Your task to perform on an android device: stop showing notifications on the lock screen Image 0: 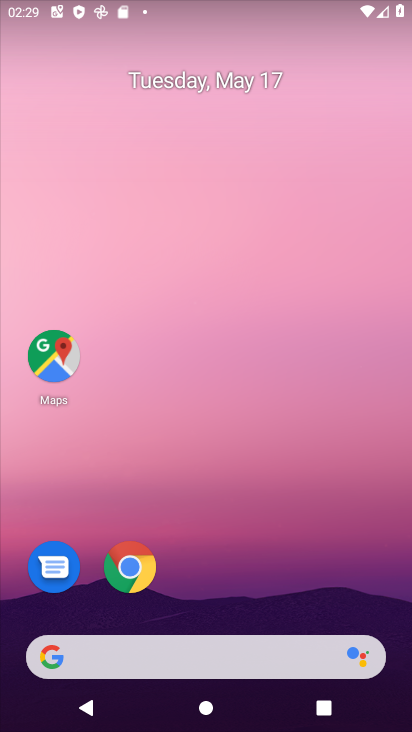
Step 0: drag from (391, 631) to (330, 202)
Your task to perform on an android device: stop showing notifications on the lock screen Image 1: 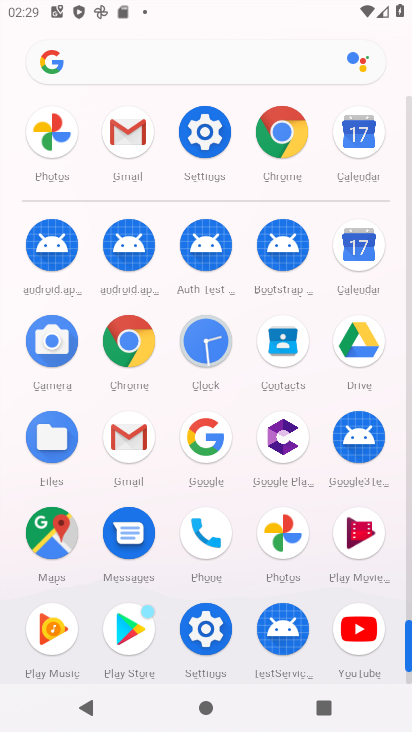
Step 1: click (208, 629)
Your task to perform on an android device: stop showing notifications on the lock screen Image 2: 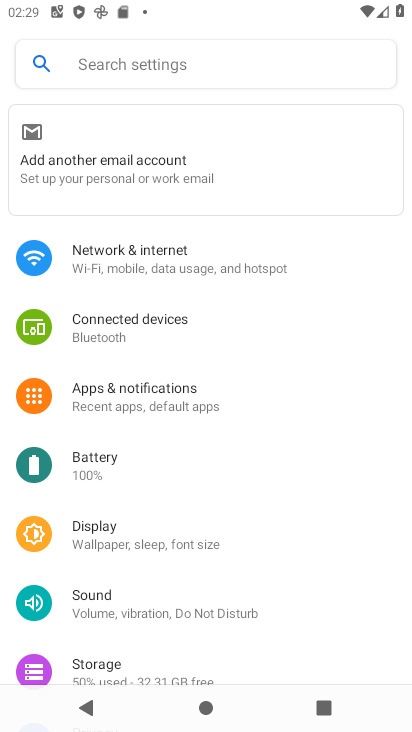
Step 2: click (131, 387)
Your task to perform on an android device: stop showing notifications on the lock screen Image 3: 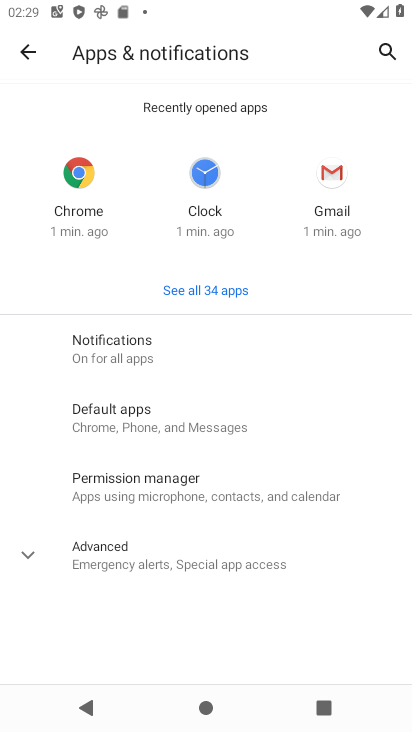
Step 3: click (89, 335)
Your task to perform on an android device: stop showing notifications on the lock screen Image 4: 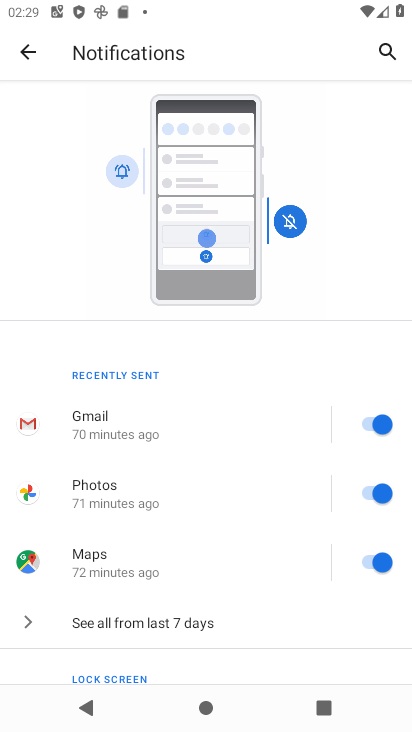
Step 4: drag from (321, 635) to (308, 165)
Your task to perform on an android device: stop showing notifications on the lock screen Image 5: 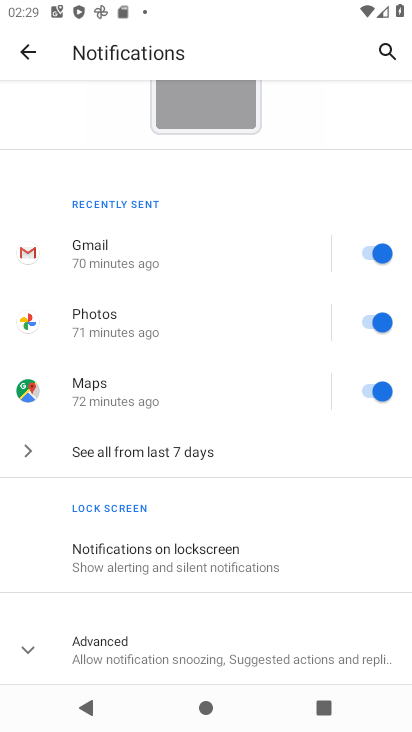
Step 5: click (134, 558)
Your task to perform on an android device: stop showing notifications on the lock screen Image 6: 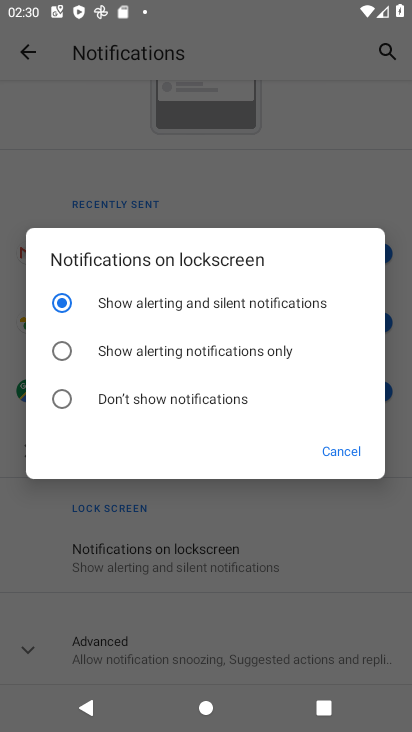
Step 6: click (58, 396)
Your task to perform on an android device: stop showing notifications on the lock screen Image 7: 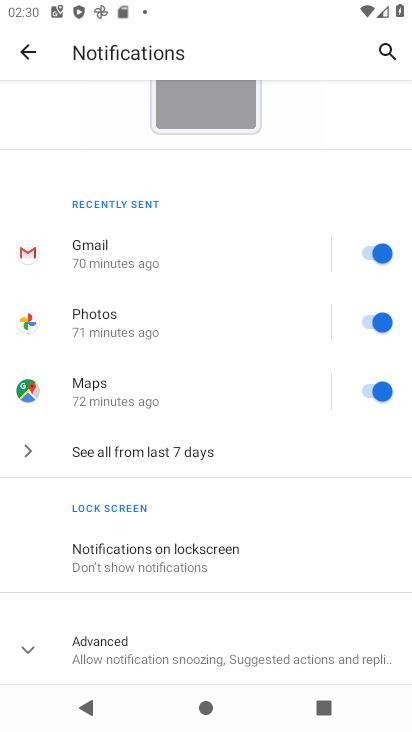
Step 7: task complete